Your task to perform on an android device: add a label to a message in the gmail app Image 0: 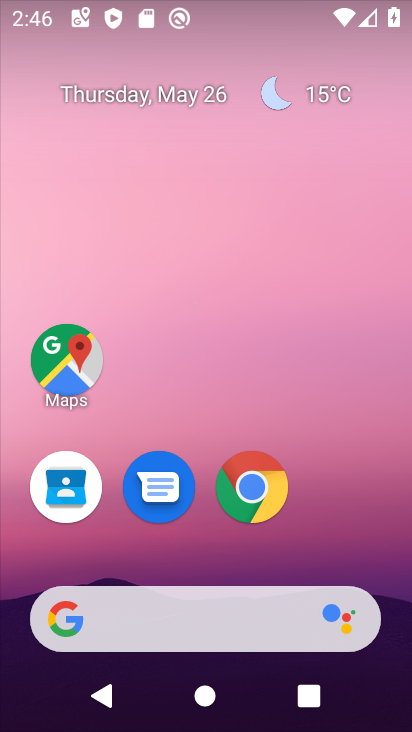
Step 0: drag from (218, 560) to (275, 156)
Your task to perform on an android device: add a label to a message in the gmail app Image 1: 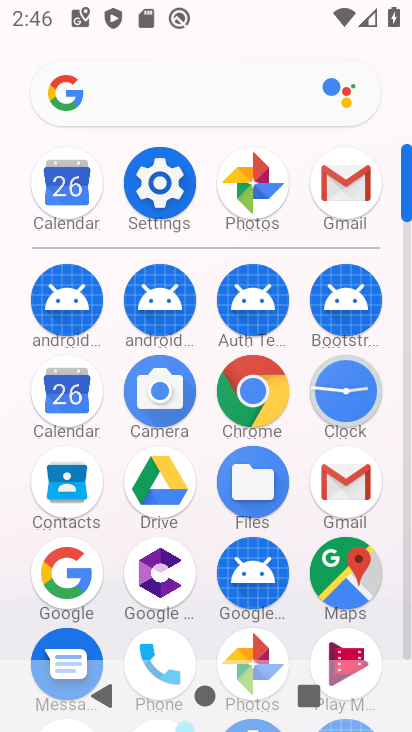
Step 1: click (332, 196)
Your task to perform on an android device: add a label to a message in the gmail app Image 2: 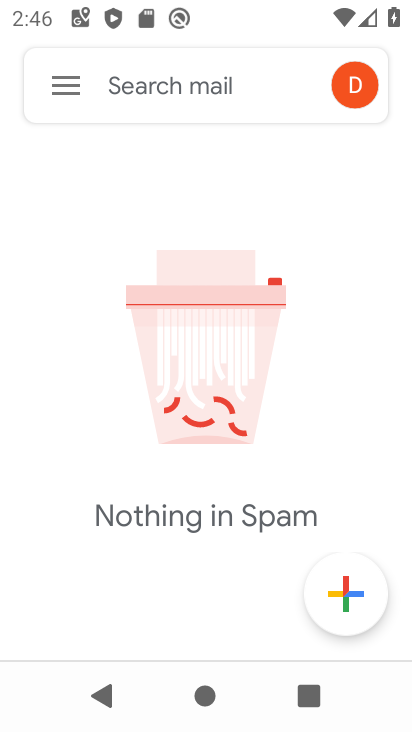
Step 2: click (76, 92)
Your task to perform on an android device: add a label to a message in the gmail app Image 3: 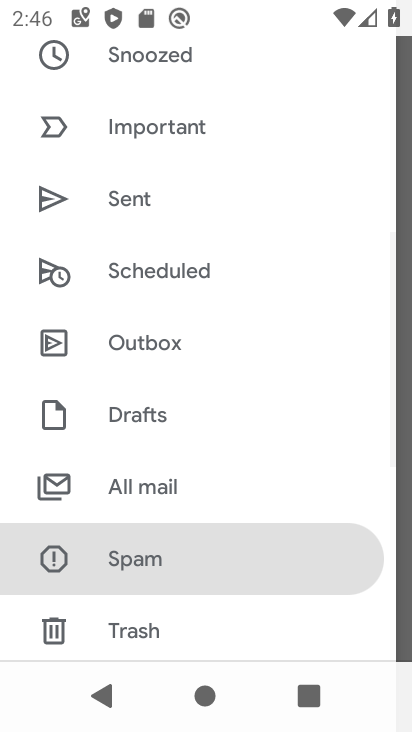
Step 3: click (157, 499)
Your task to perform on an android device: add a label to a message in the gmail app Image 4: 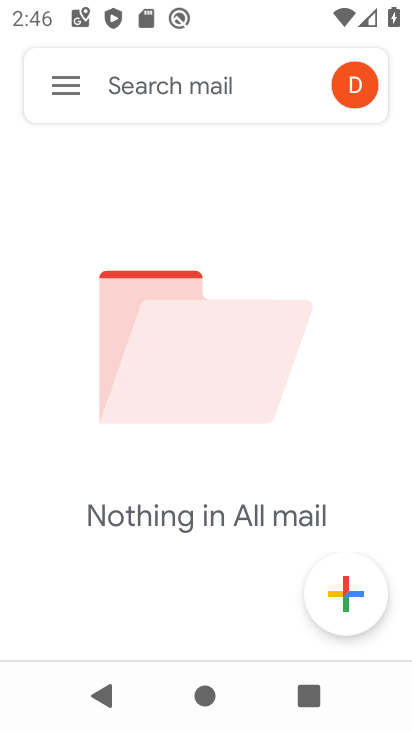
Step 4: task complete